Your task to perform on an android device: Set the phone to "Do not disturb". Image 0: 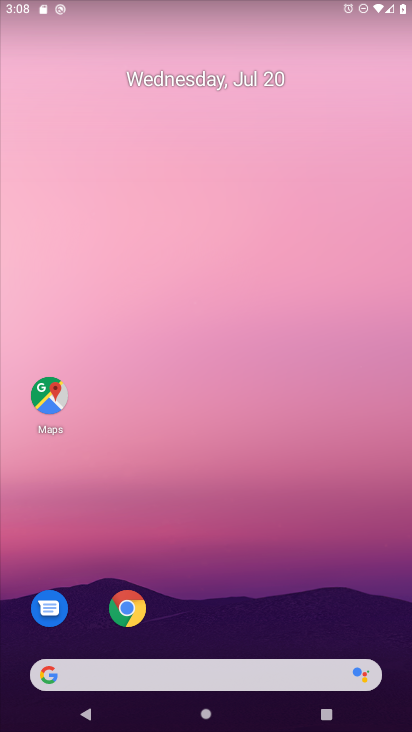
Step 0: drag from (165, 657) to (287, 126)
Your task to perform on an android device: Set the phone to "Do not disturb". Image 1: 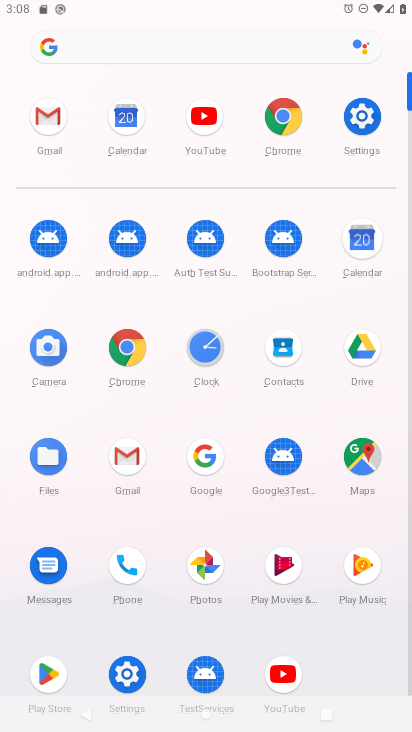
Step 1: click (369, 114)
Your task to perform on an android device: Set the phone to "Do not disturb". Image 2: 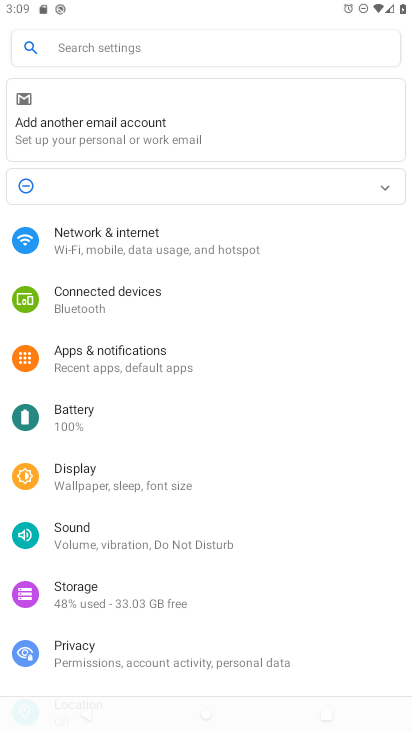
Step 2: click (195, 539)
Your task to perform on an android device: Set the phone to "Do not disturb". Image 3: 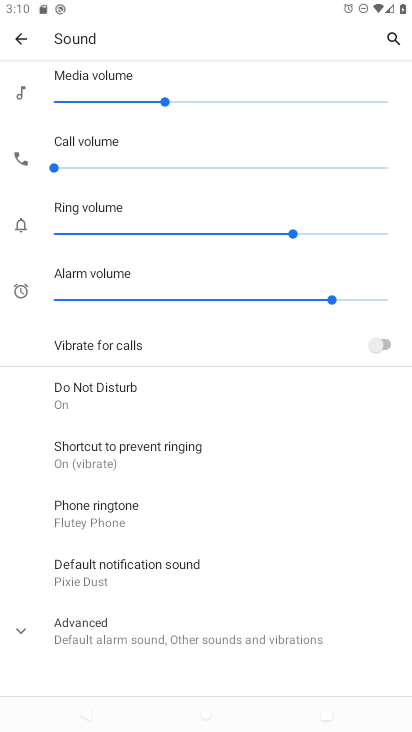
Step 3: click (105, 388)
Your task to perform on an android device: Set the phone to "Do not disturb". Image 4: 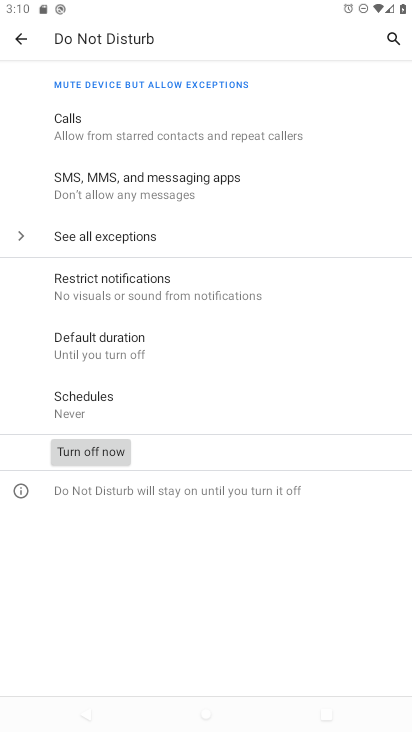
Step 4: task complete